Your task to perform on an android device: turn vacation reply on in the gmail app Image 0: 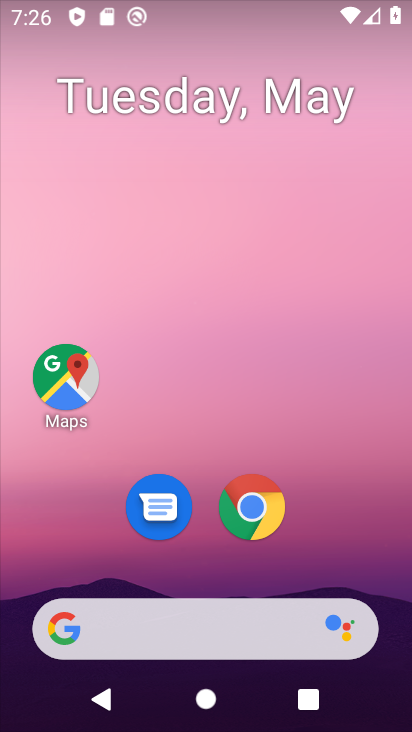
Step 0: drag from (178, 578) to (230, 12)
Your task to perform on an android device: turn vacation reply on in the gmail app Image 1: 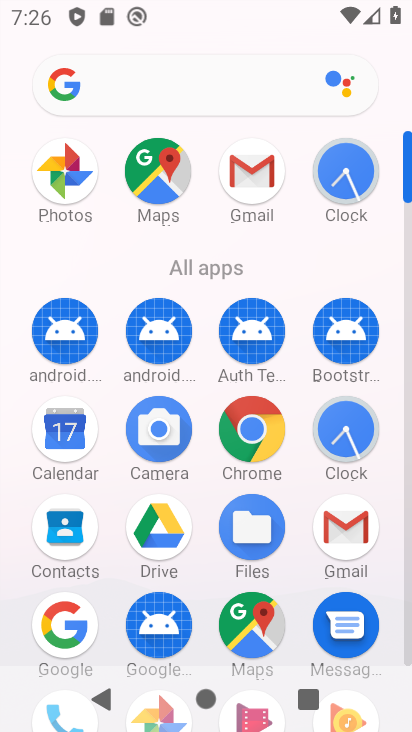
Step 1: click (242, 175)
Your task to perform on an android device: turn vacation reply on in the gmail app Image 2: 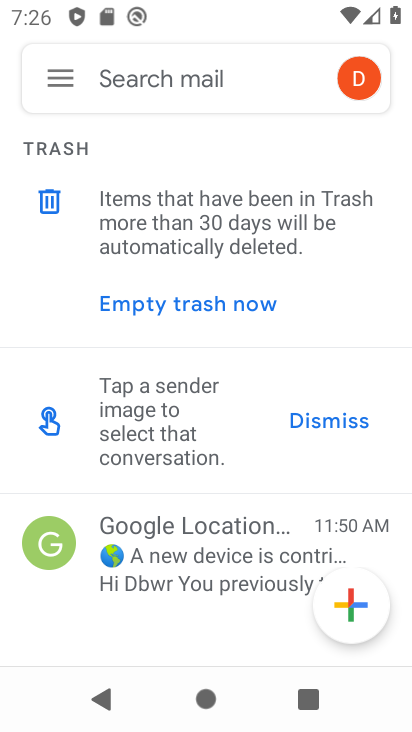
Step 2: click (40, 81)
Your task to perform on an android device: turn vacation reply on in the gmail app Image 3: 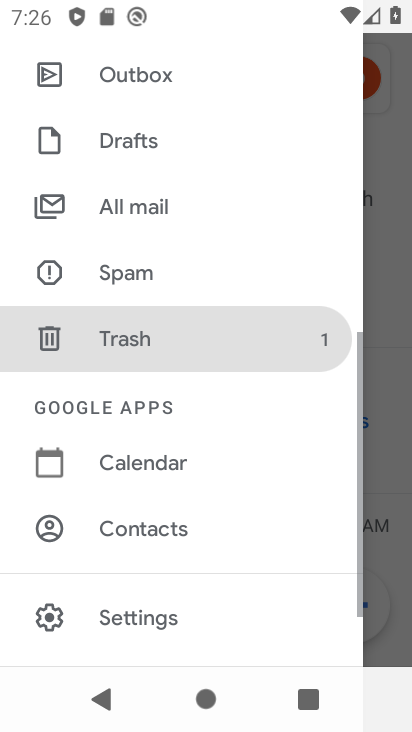
Step 3: click (153, 623)
Your task to perform on an android device: turn vacation reply on in the gmail app Image 4: 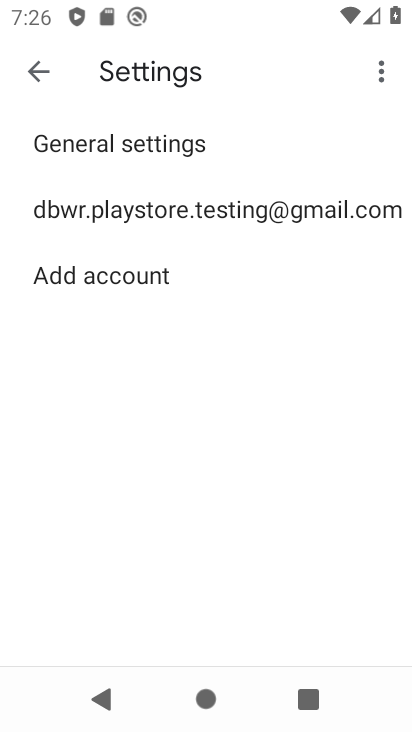
Step 4: click (180, 203)
Your task to perform on an android device: turn vacation reply on in the gmail app Image 5: 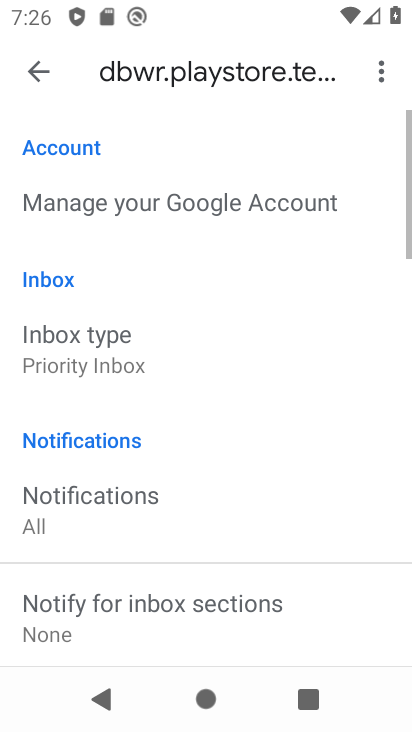
Step 5: drag from (186, 596) to (273, 174)
Your task to perform on an android device: turn vacation reply on in the gmail app Image 6: 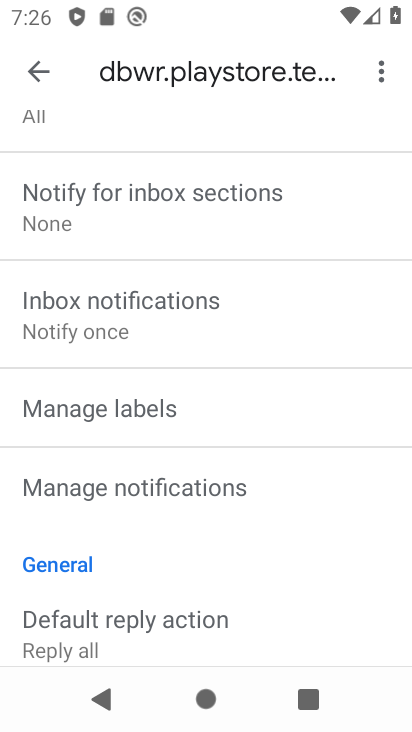
Step 6: drag from (233, 564) to (265, 228)
Your task to perform on an android device: turn vacation reply on in the gmail app Image 7: 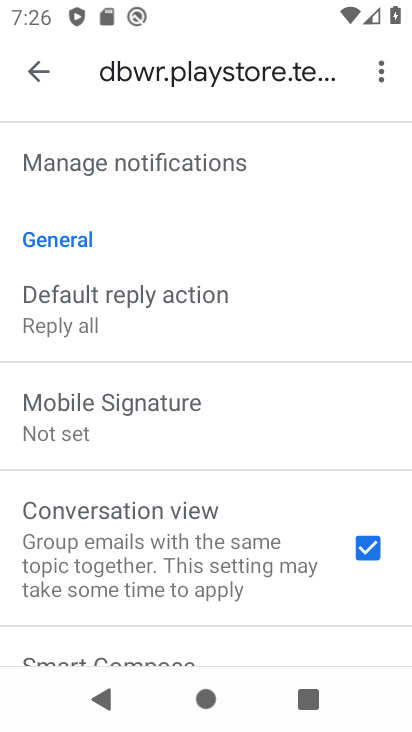
Step 7: drag from (222, 574) to (170, 285)
Your task to perform on an android device: turn vacation reply on in the gmail app Image 8: 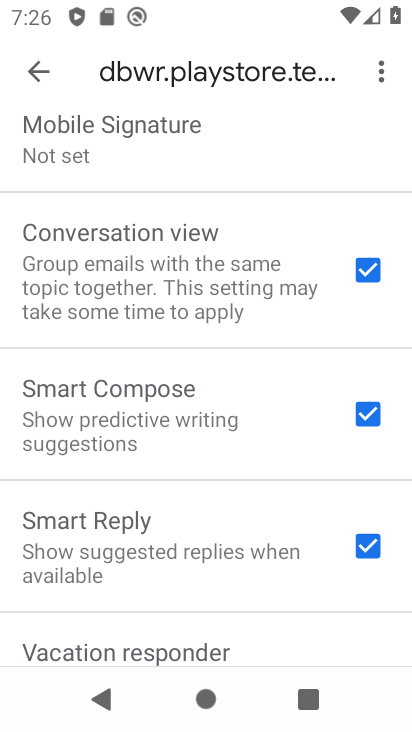
Step 8: drag from (187, 602) to (150, 65)
Your task to perform on an android device: turn vacation reply on in the gmail app Image 9: 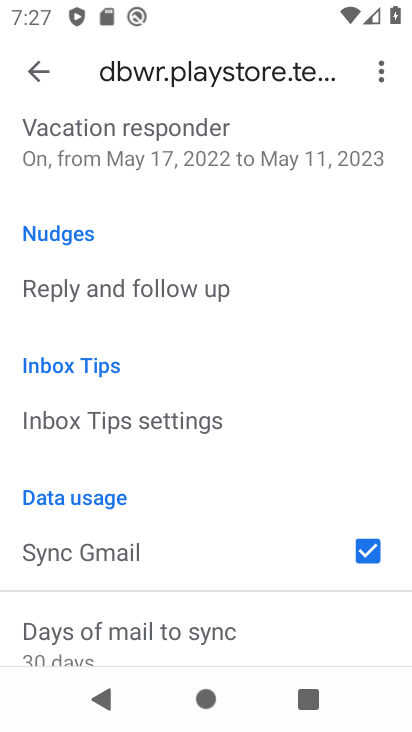
Step 9: click (113, 170)
Your task to perform on an android device: turn vacation reply on in the gmail app Image 10: 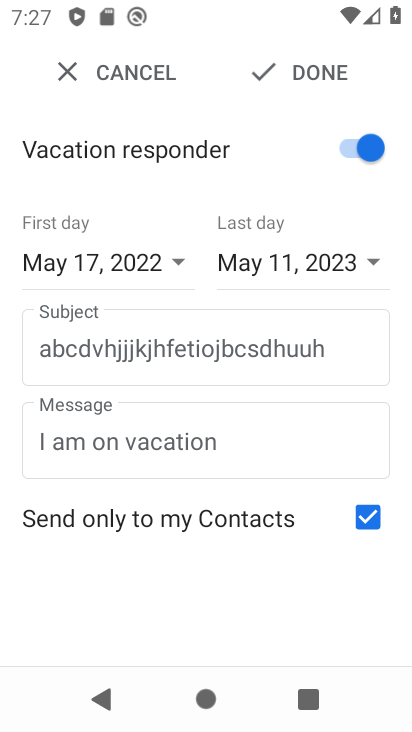
Step 10: click (340, 71)
Your task to perform on an android device: turn vacation reply on in the gmail app Image 11: 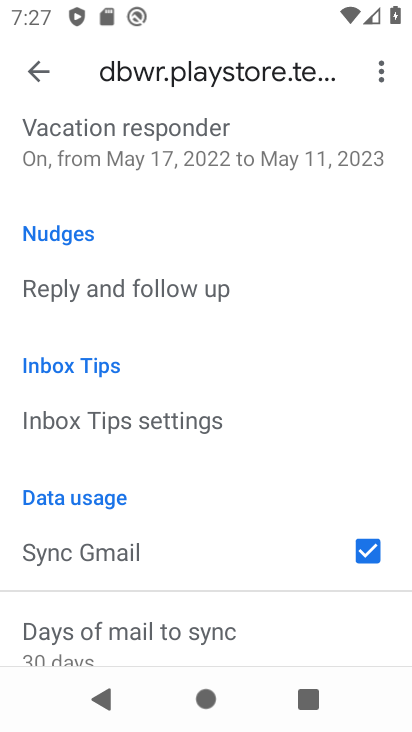
Step 11: task complete